Your task to perform on an android device: change the clock style Image 0: 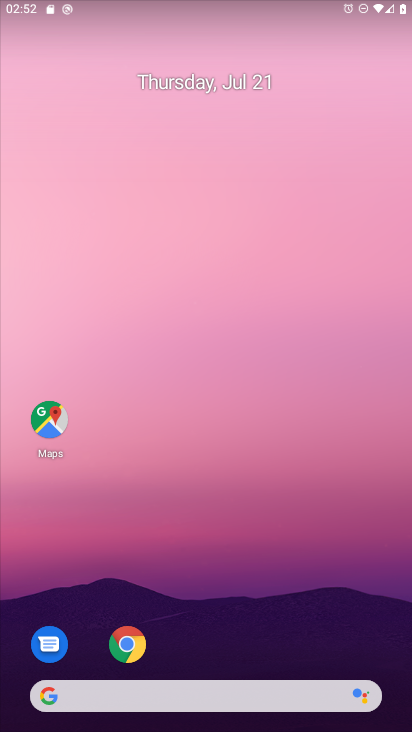
Step 0: drag from (227, 673) to (293, 121)
Your task to perform on an android device: change the clock style Image 1: 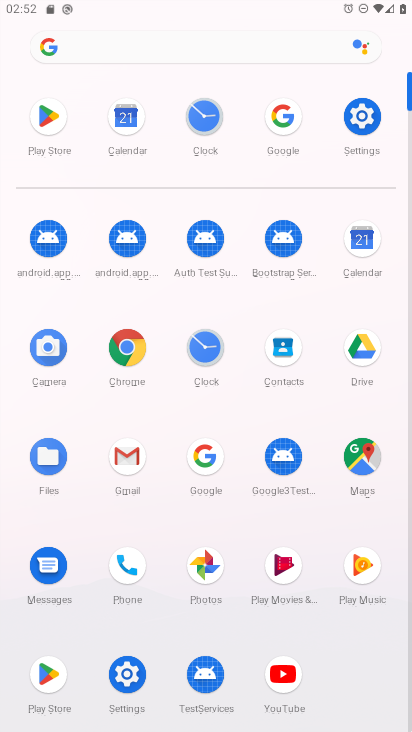
Step 1: click (202, 355)
Your task to perform on an android device: change the clock style Image 2: 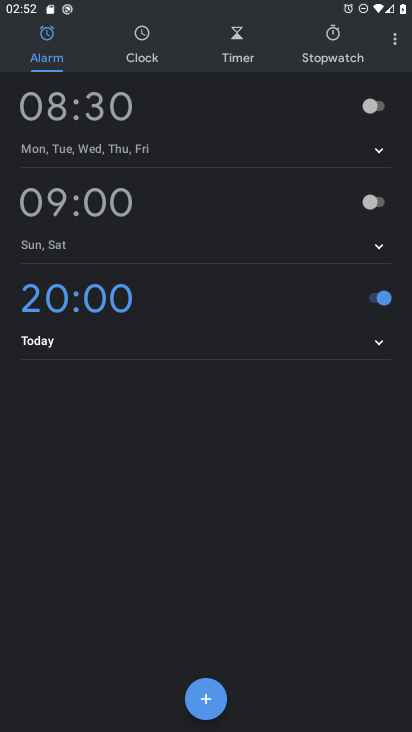
Step 2: click (398, 44)
Your task to perform on an android device: change the clock style Image 3: 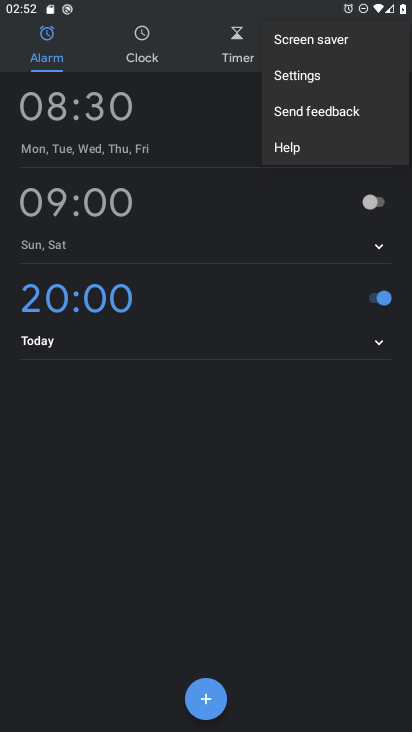
Step 3: click (306, 78)
Your task to perform on an android device: change the clock style Image 4: 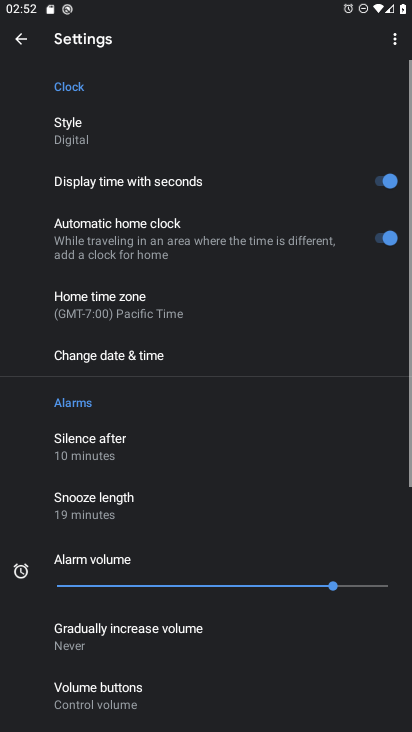
Step 4: click (88, 137)
Your task to perform on an android device: change the clock style Image 5: 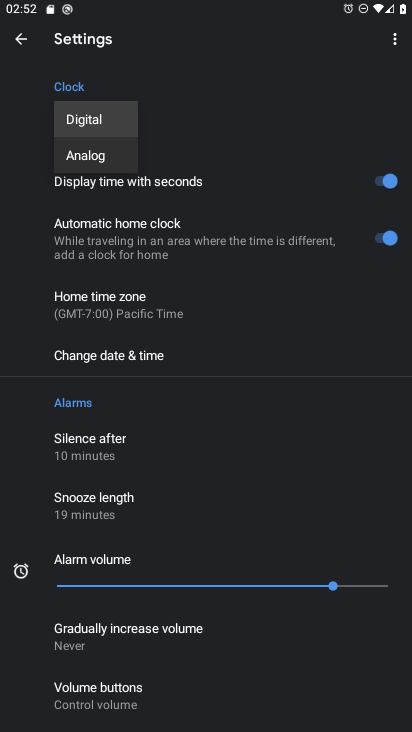
Step 5: click (85, 165)
Your task to perform on an android device: change the clock style Image 6: 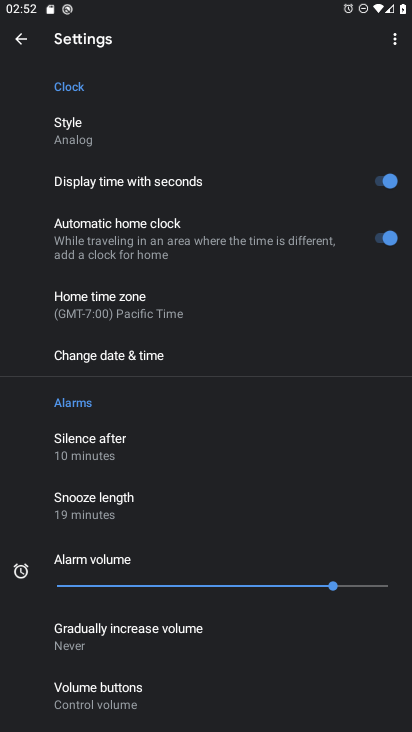
Step 6: task complete